Your task to perform on an android device: Open the camera Image 0: 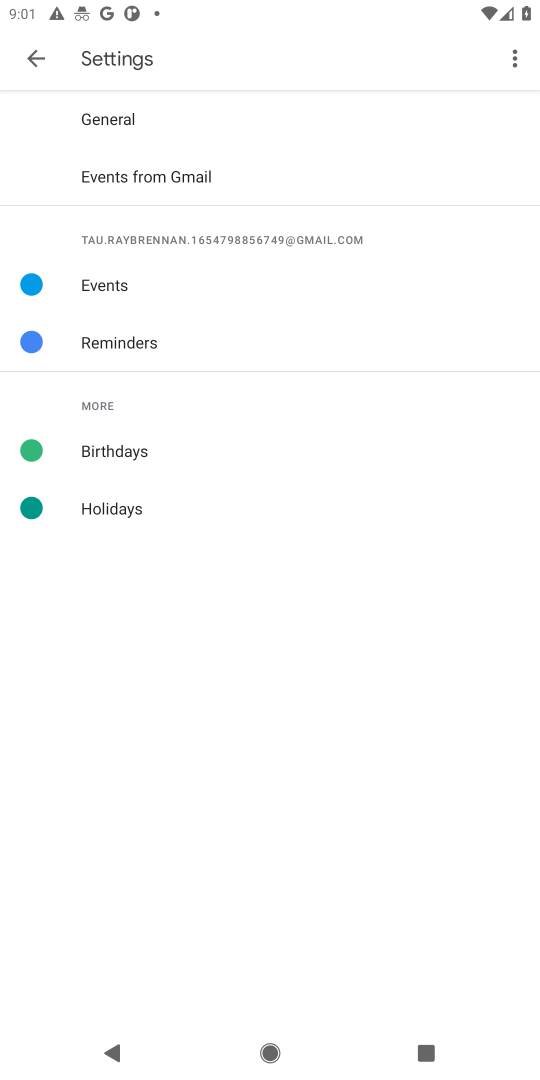
Step 0: press home button
Your task to perform on an android device: Open the camera Image 1: 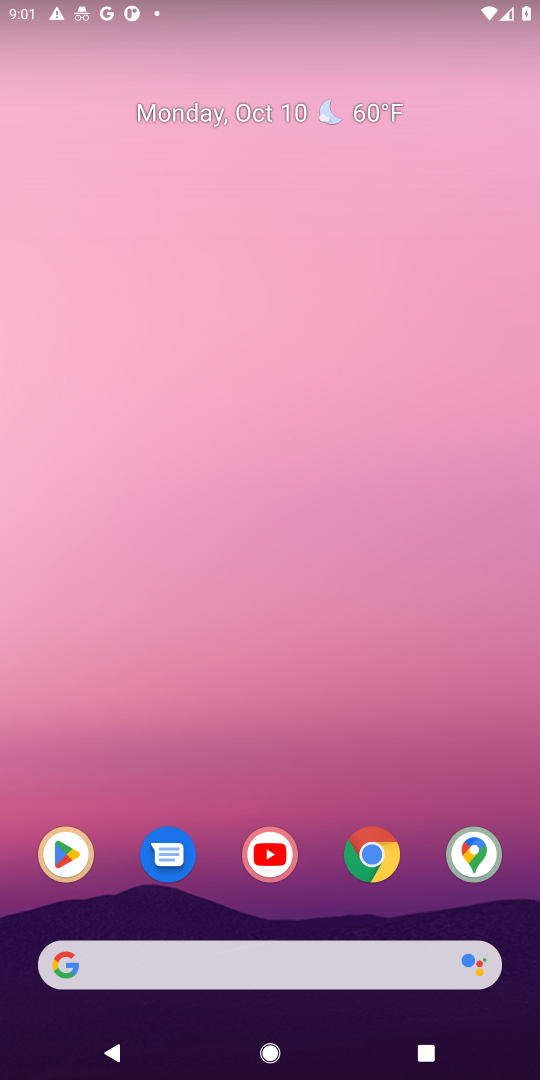
Step 1: drag from (254, 952) to (481, 185)
Your task to perform on an android device: Open the camera Image 2: 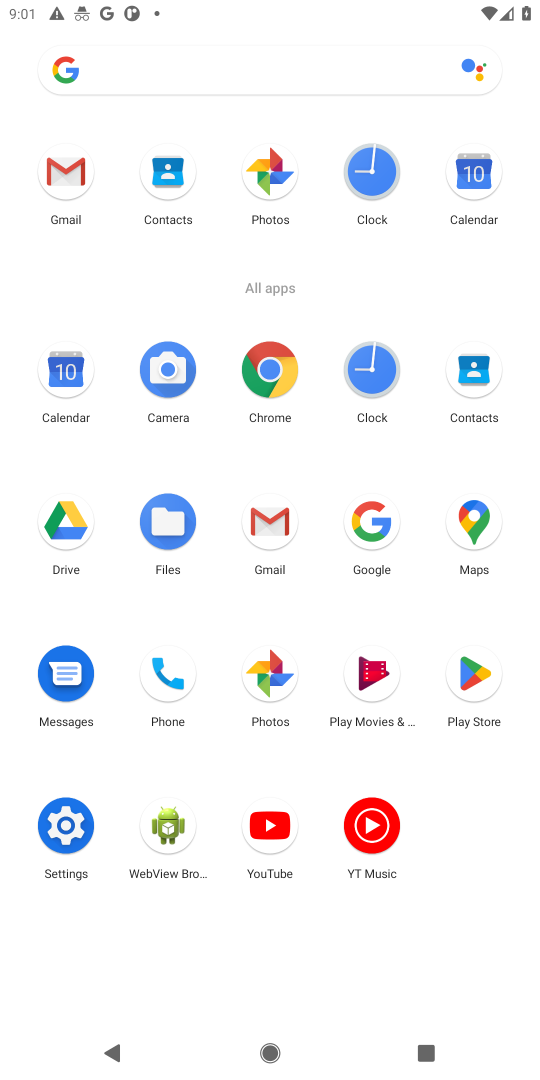
Step 2: click (163, 363)
Your task to perform on an android device: Open the camera Image 3: 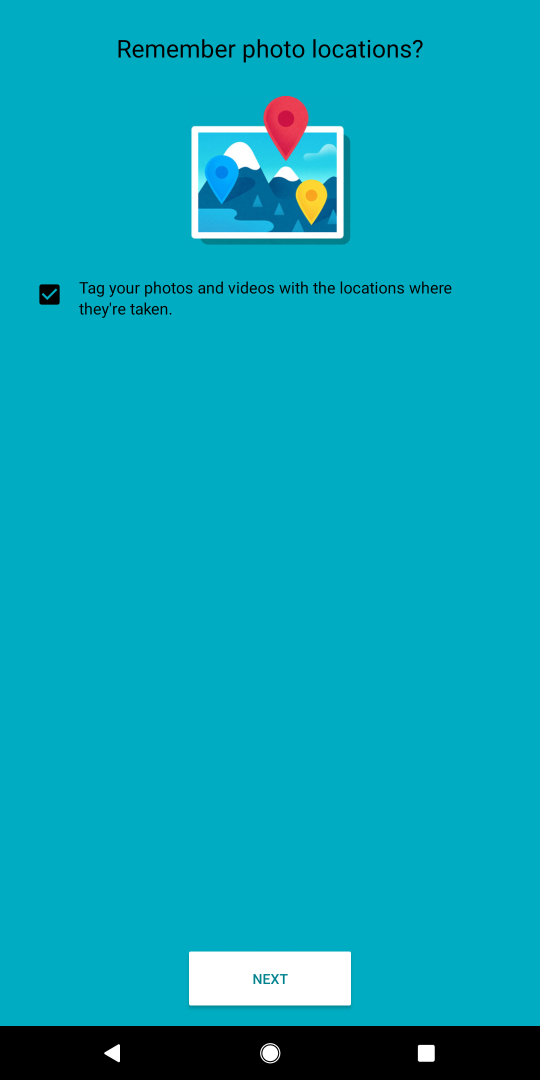
Step 3: click (303, 966)
Your task to perform on an android device: Open the camera Image 4: 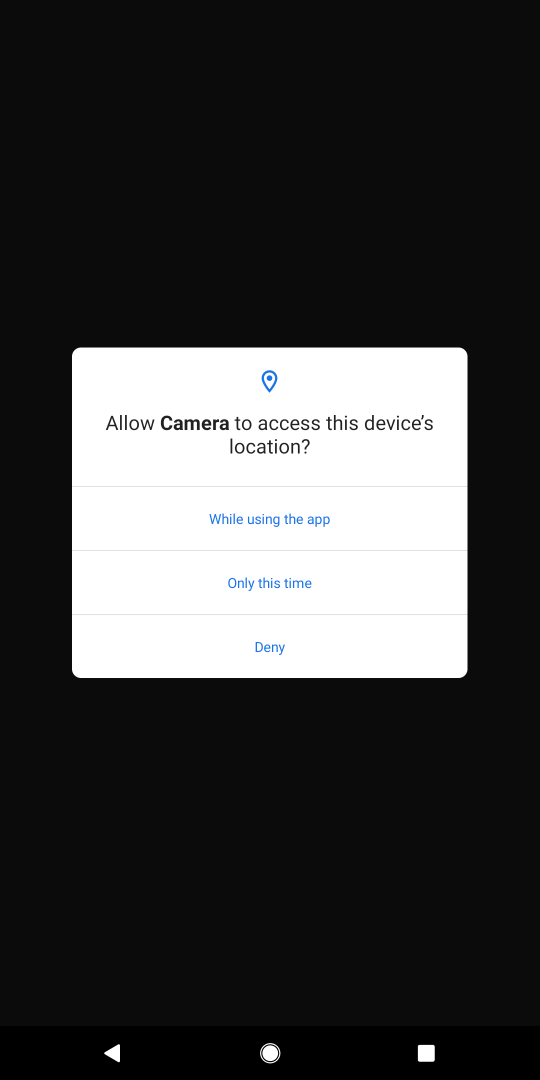
Step 4: click (273, 524)
Your task to perform on an android device: Open the camera Image 5: 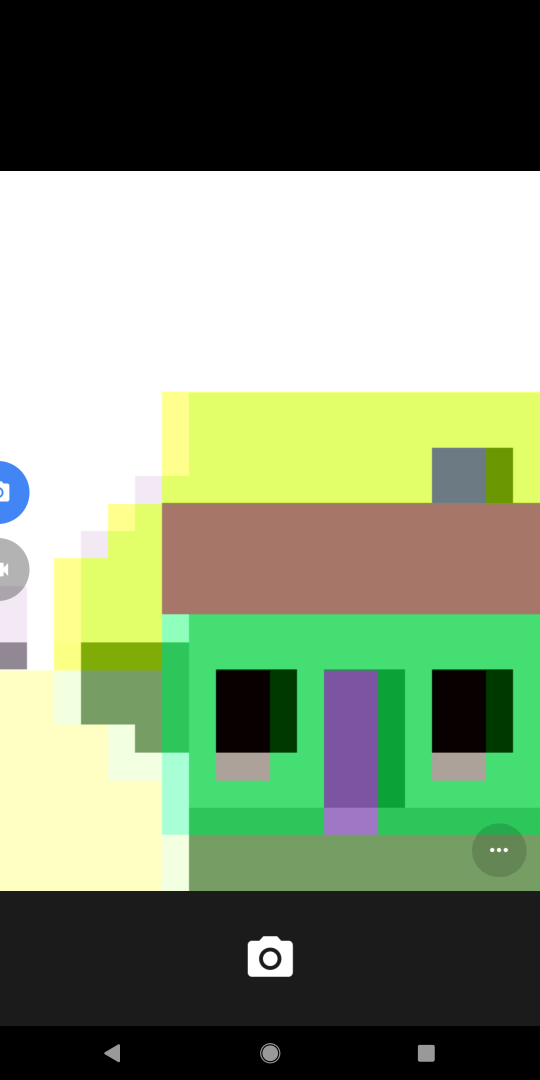
Step 5: task complete